Your task to perform on an android device: delete a single message in the gmail app Image 0: 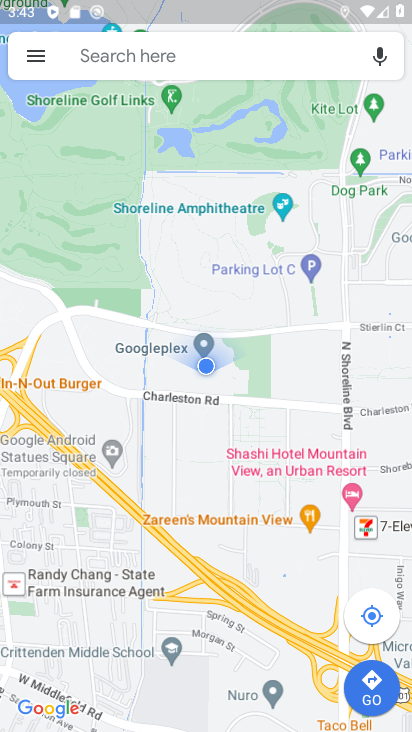
Step 0: press back button
Your task to perform on an android device: delete a single message in the gmail app Image 1: 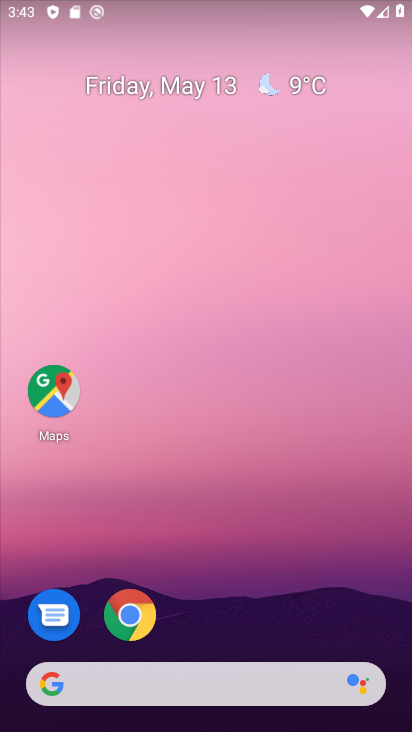
Step 1: drag from (217, 629) to (241, 208)
Your task to perform on an android device: delete a single message in the gmail app Image 2: 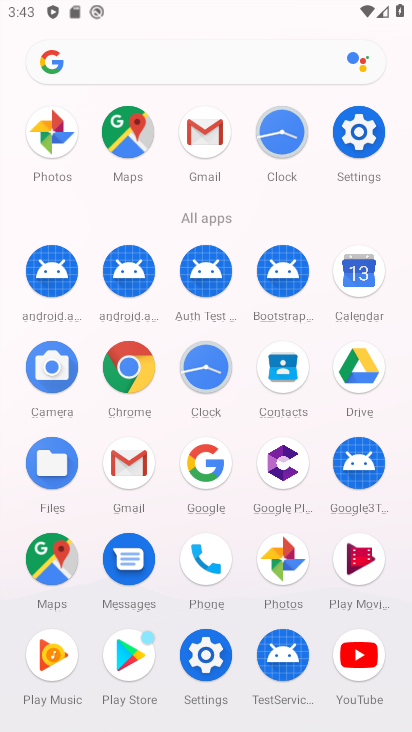
Step 2: click (211, 135)
Your task to perform on an android device: delete a single message in the gmail app Image 3: 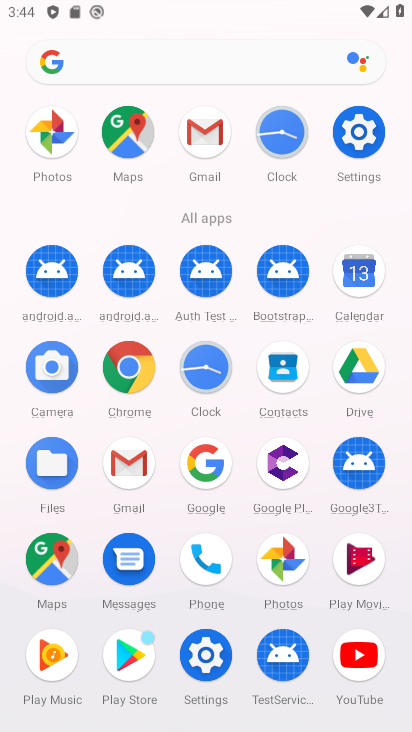
Step 3: click (206, 128)
Your task to perform on an android device: delete a single message in the gmail app Image 4: 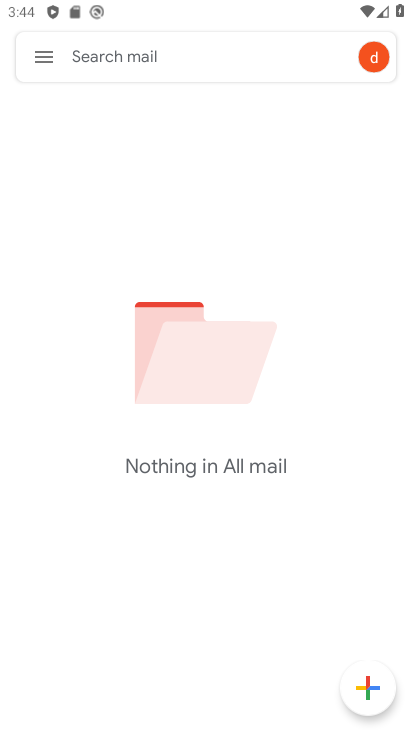
Step 4: task complete